Your task to perform on an android device: Search for logitech g pro on newegg.com, select the first entry, and add it to the cart. Image 0: 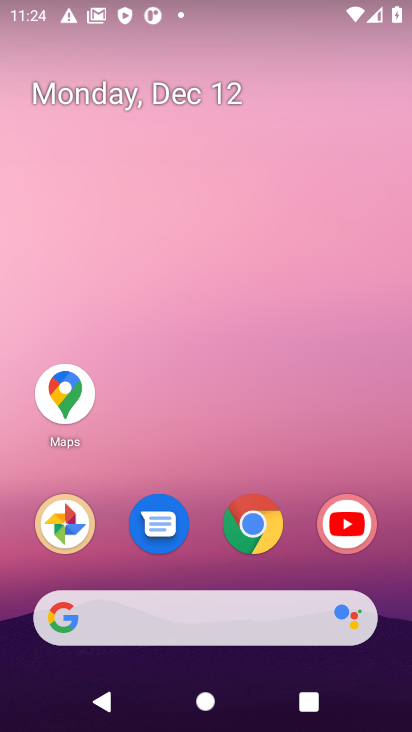
Step 0: click (254, 528)
Your task to perform on an android device: Search for logitech g pro on newegg.com, select the first entry, and add it to the cart. Image 1: 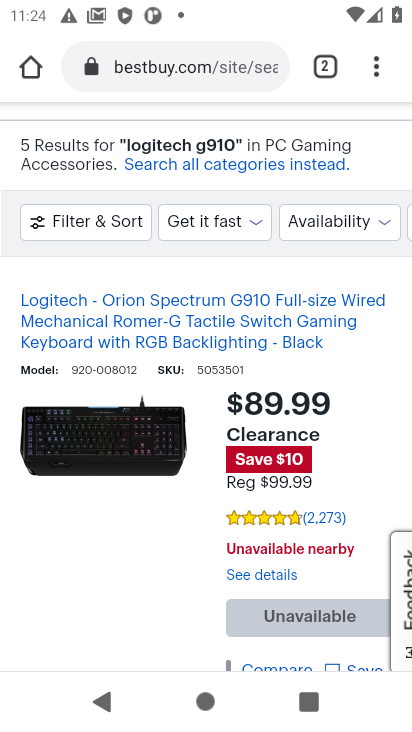
Step 1: click (159, 66)
Your task to perform on an android device: Search for logitech g pro on newegg.com, select the first entry, and add it to the cart. Image 2: 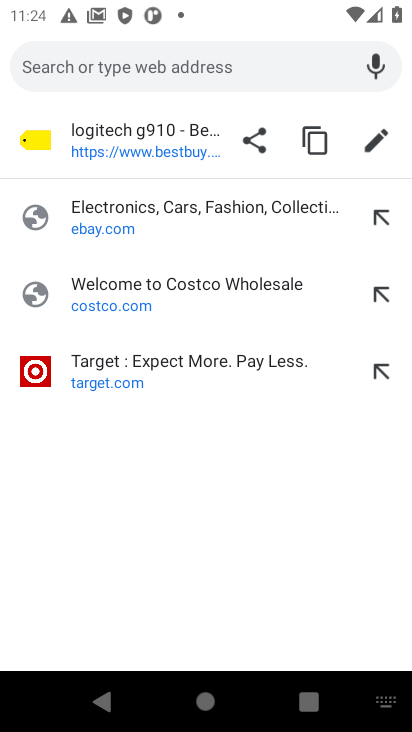
Step 2: type "newegg.com"
Your task to perform on an android device: Search for logitech g pro on newegg.com, select the first entry, and add it to the cart. Image 3: 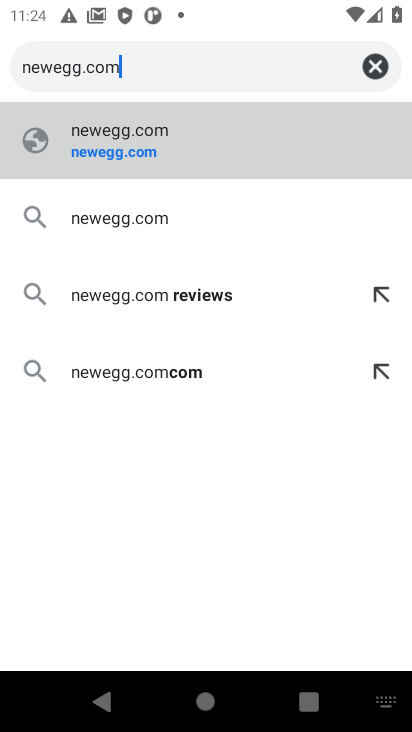
Step 3: click (120, 152)
Your task to perform on an android device: Search for logitech g pro on newegg.com, select the first entry, and add it to the cart. Image 4: 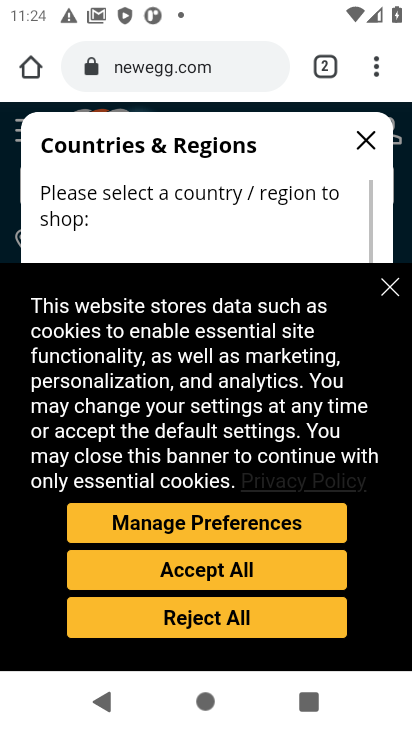
Step 4: click (389, 293)
Your task to perform on an android device: Search for logitech g pro on newegg.com, select the first entry, and add it to the cart. Image 5: 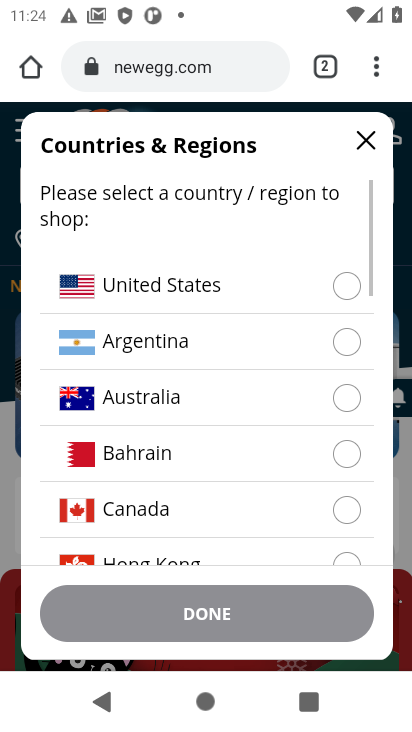
Step 5: click (162, 292)
Your task to perform on an android device: Search for logitech g pro on newegg.com, select the first entry, and add it to the cart. Image 6: 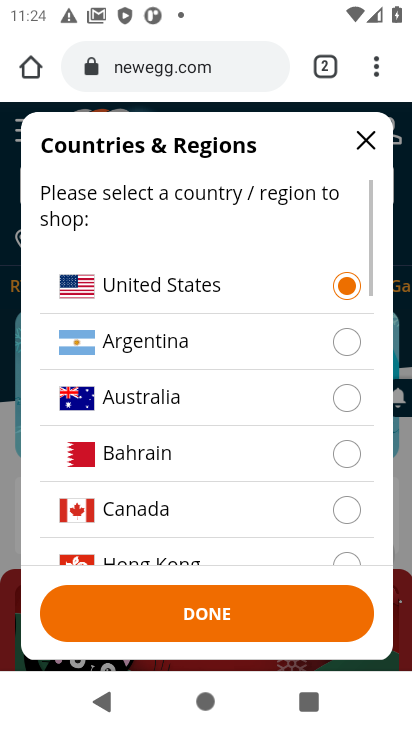
Step 6: click (211, 612)
Your task to perform on an android device: Search for logitech g pro on newegg.com, select the first entry, and add it to the cart. Image 7: 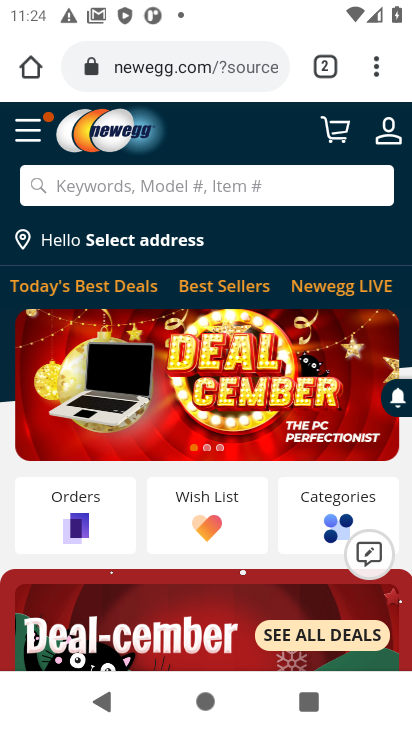
Step 7: click (117, 184)
Your task to perform on an android device: Search for logitech g pro on newegg.com, select the first entry, and add it to the cart. Image 8: 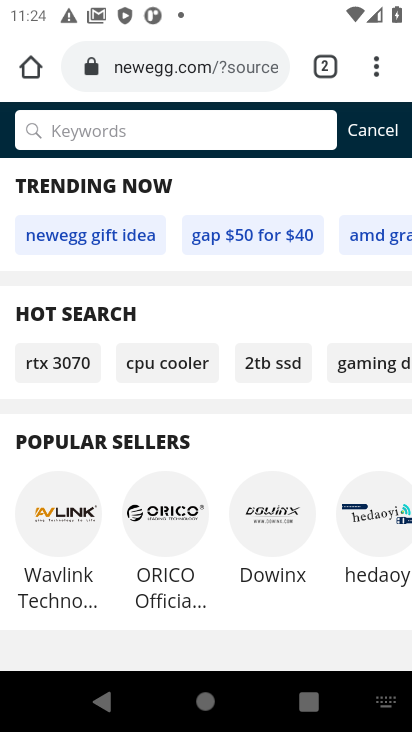
Step 8: type "logitech g pro"
Your task to perform on an android device: Search for logitech g pro on newegg.com, select the first entry, and add it to the cart. Image 9: 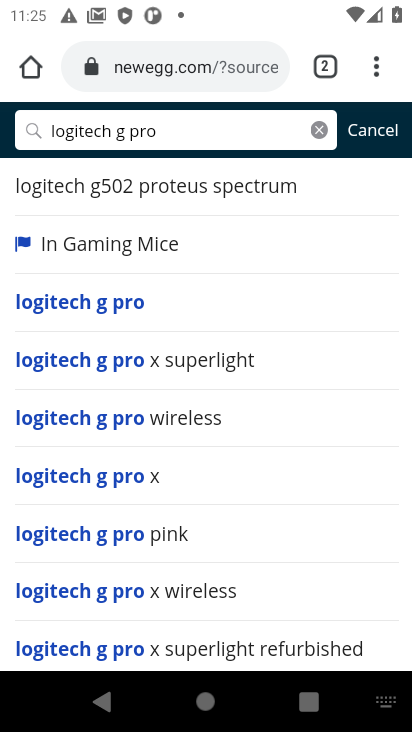
Step 9: click (123, 307)
Your task to perform on an android device: Search for logitech g pro on newegg.com, select the first entry, and add it to the cart. Image 10: 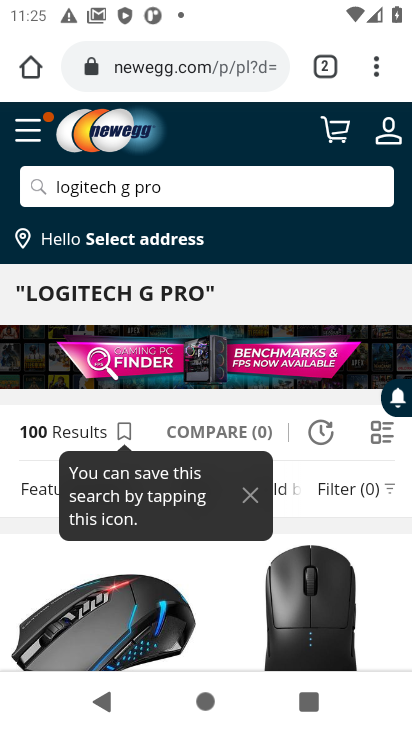
Step 10: task complete